Your task to perform on an android device: Do I have any events tomorrow? Image 0: 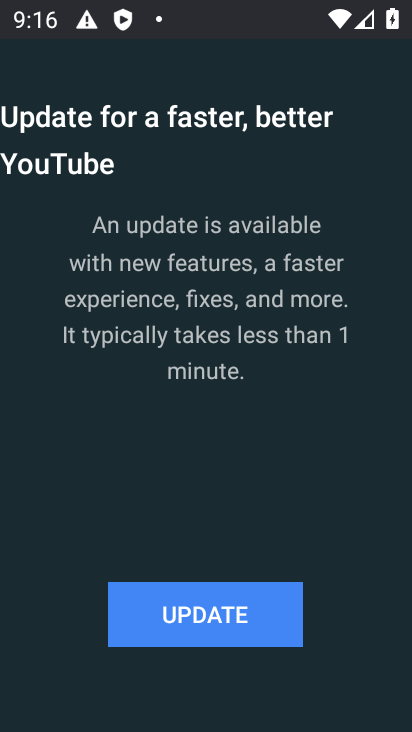
Step 0: press home button
Your task to perform on an android device: Do I have any events tomorrow? Image 1: 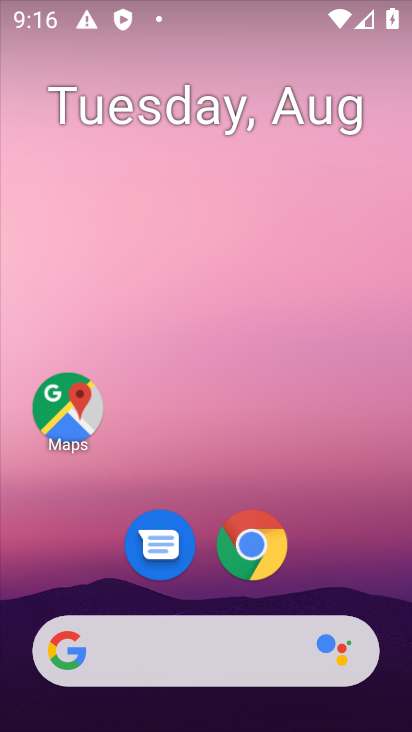
Step 1: drag from (48, 498) to (209, 124)
Your task to perform on an android device: Do I have any events tomorrow? Image 2: 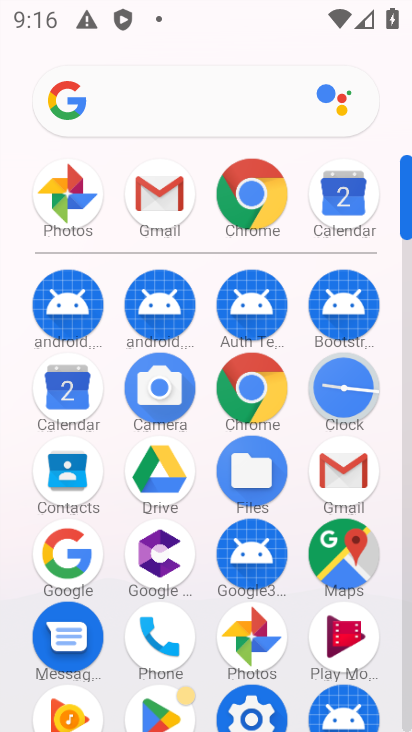
Step 2: click (62, 391)
Your task to perform on an android device: Do I have any events tomorrow? Image 3: 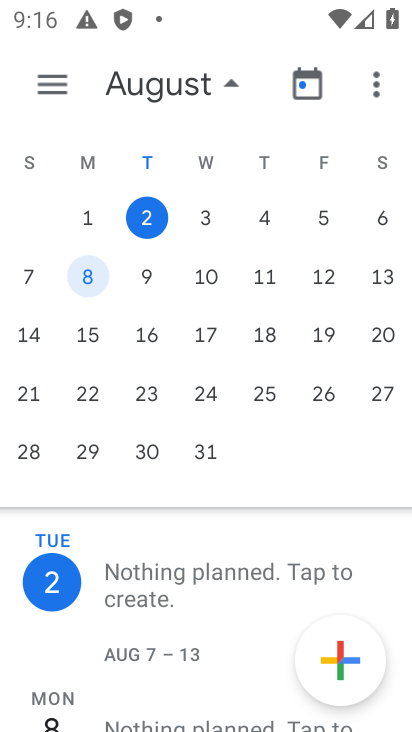
Step 3: click (206, 216)
Your task to perform on an android device: Do I have any events tomorrow? Image 4: 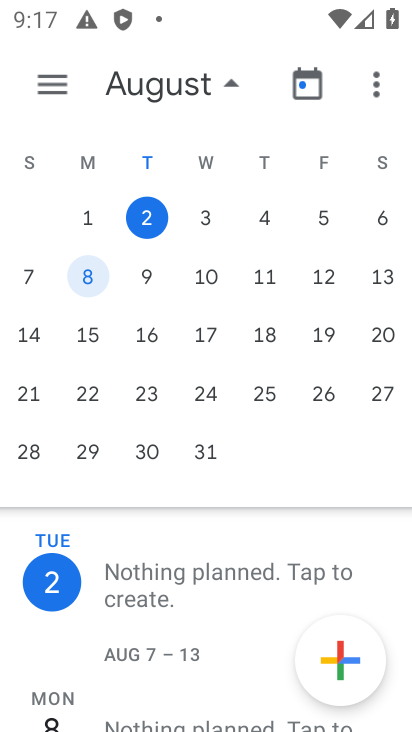
Step 4: click (204, 225)
Your task to perform on an android device: Do I have any events tomorrow? Image 5: 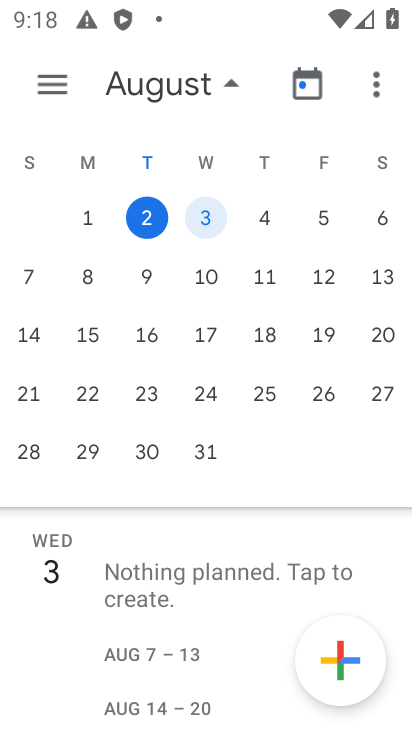
Step 5: task complete